Your task to perform on an android device: show emergency info Image 0: 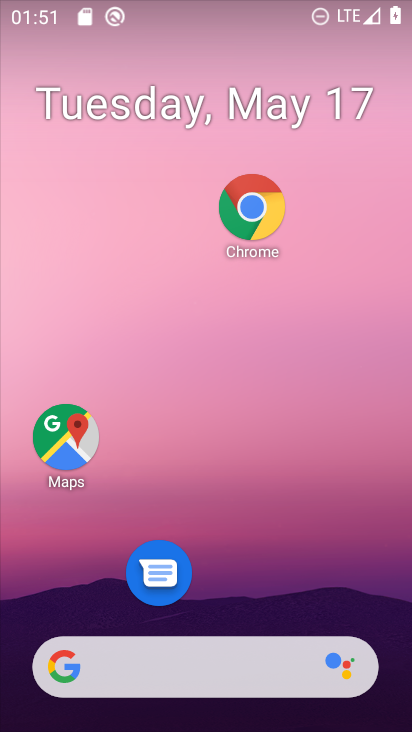
Step 0: drag from (266, 637) to (246, 0)
Your task to perform on an android device: show emergency info Image 1: 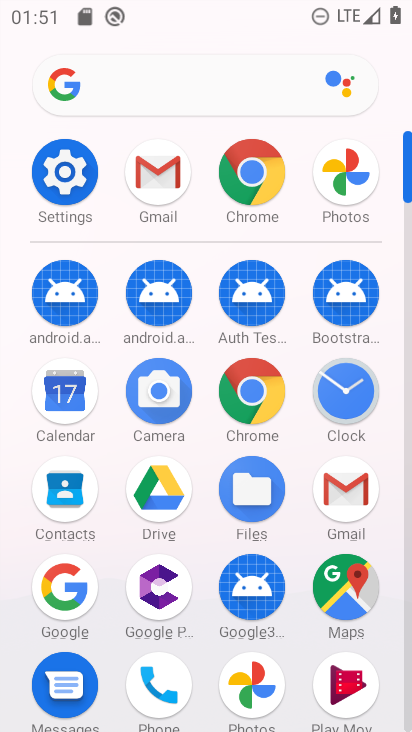
Step 1: click (58, 159)
Your task to perform on an android device: show emergency info Image 2: 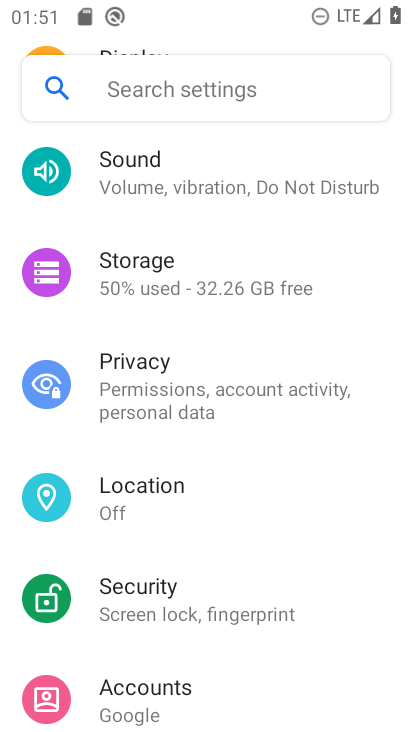
Step 2: drag from (227, 686) to (255, 131)
Your task to perform on an android device: show emergency info Image 3: 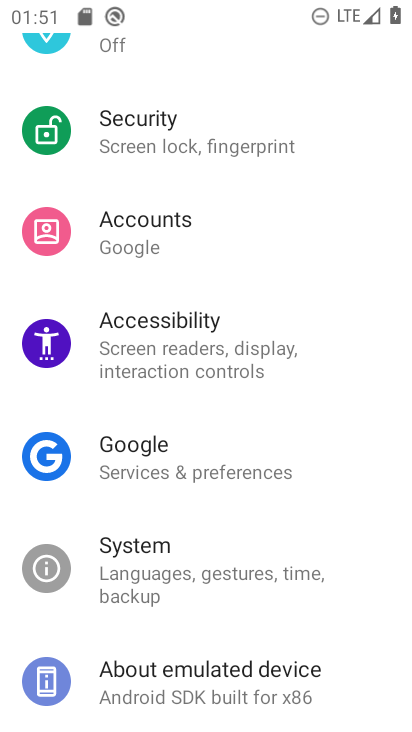
Step 3: click (235, 693)
Your task to perform on an android device: show emergency info Image 4: 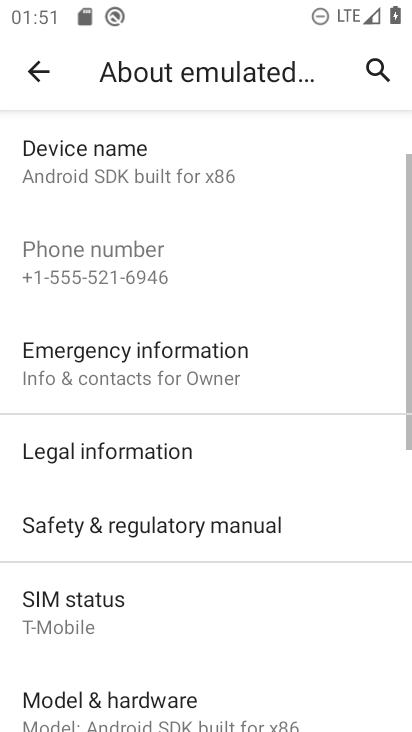
Step 4: click (219, 375)
Your task to perform on an android device: show emergency info Image 5: 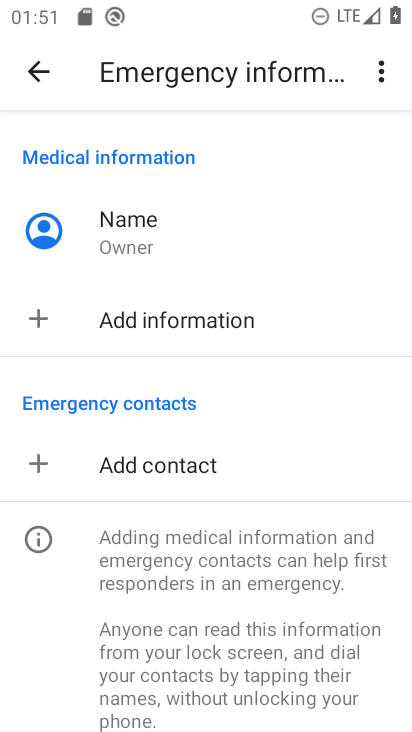
Step 5: task complete